Your task to perform on an android device: Search for sushi restaurants on Maps Image 0: 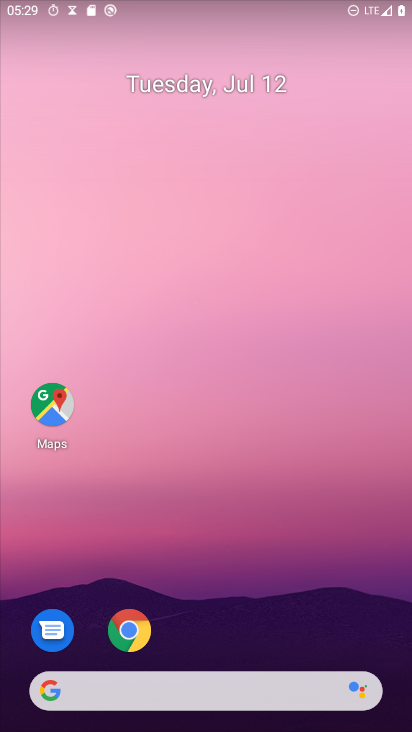
Step 0: drag from (316, 692) to (304, 1)
Your task to perform on an android device: Search for sushi restaurants on Maps Image 1: 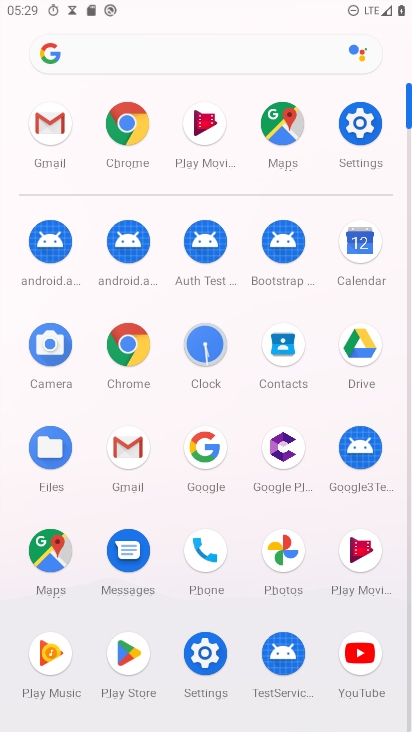
Step 1: click (44, 545)
Your task to perform on an android device: Search for sushi restaurants on Maps Image 2: 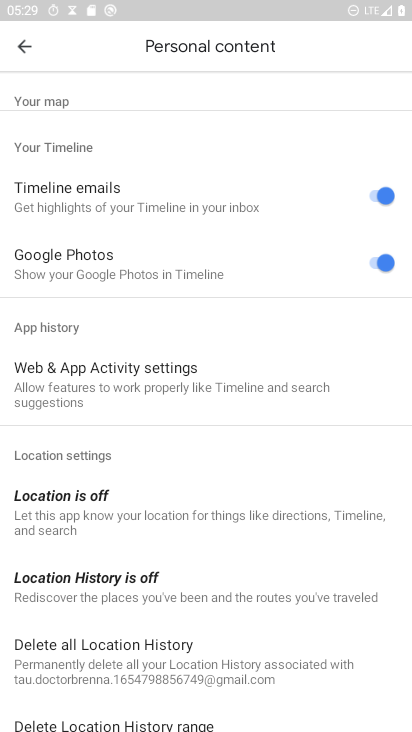
Step 2: press back button
Your task to perform on an android device: Search for sushi restaurants on Maps Image 3: 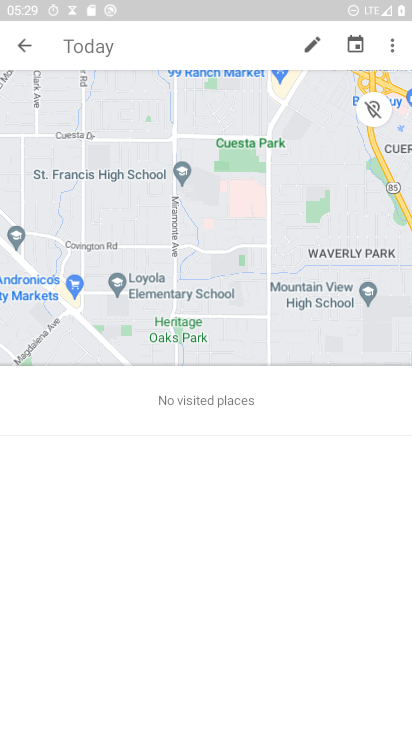
Step 3: press back button
Your task to perform on an android device: Search for sushi restaurants on Maps Image 4: 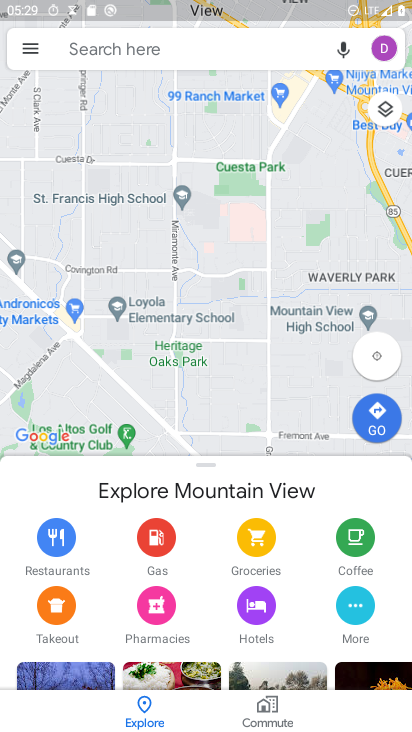
Step 4: click (148, 56)
Your task to perform on an android device: Search for sushi restaurants on Maps Image 5: 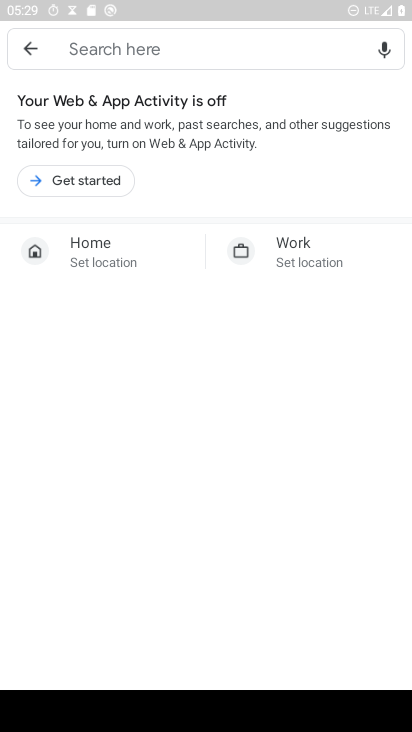
Step 5: type "sushi restaurant"
Your task to perform on an android device: Search for sushi restaurants on Maps Image 6: 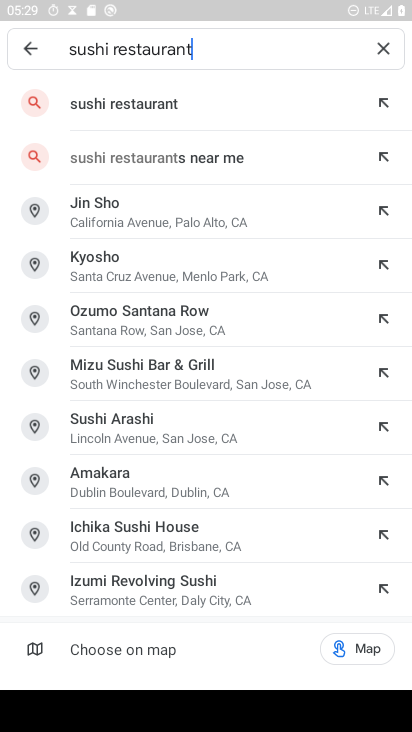
Step 6: click (160, 98)
Your task to perform on an android device: Search for sushi restaurants on Maps Image 7: 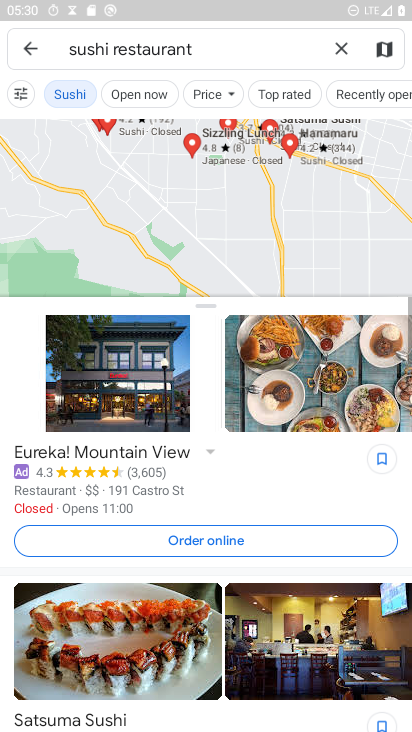
Step 7: task complete